Your task to perform on an android device: Go to Yahoo.com Image 0: 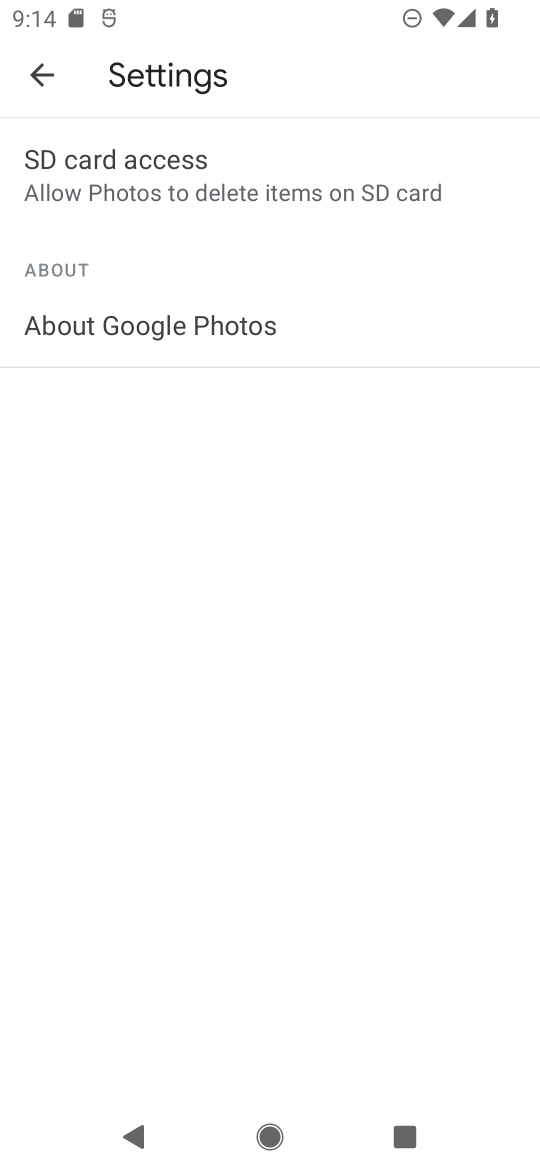
Step 0: press home button
Your task to perform on an android device: Go to Yahoo.com Image 1: 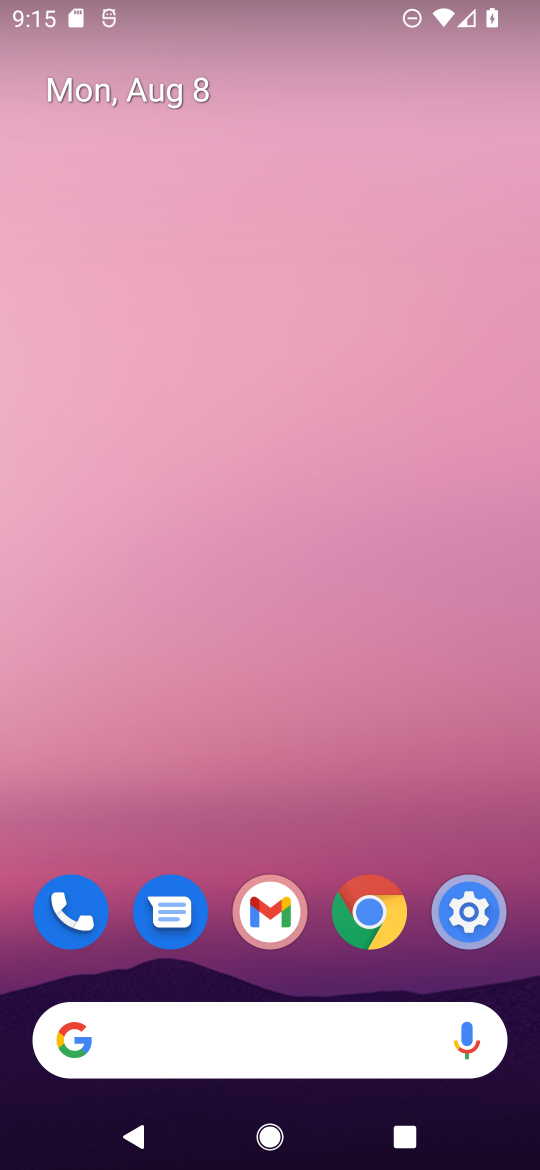
Step 1: drag from (408, 908) to (343, 27)
Your task to perform on an android device: Go to Yahoo.com Image 2: 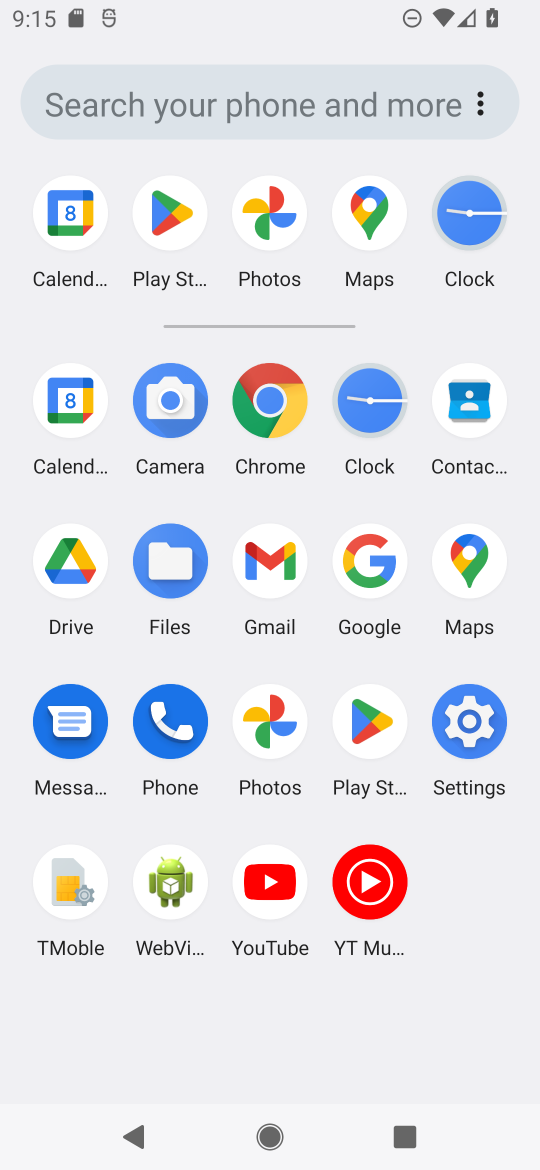
Step 2: click (354, 592)
Your task to perform on an android device: Go to Yahoo.com Image 3: 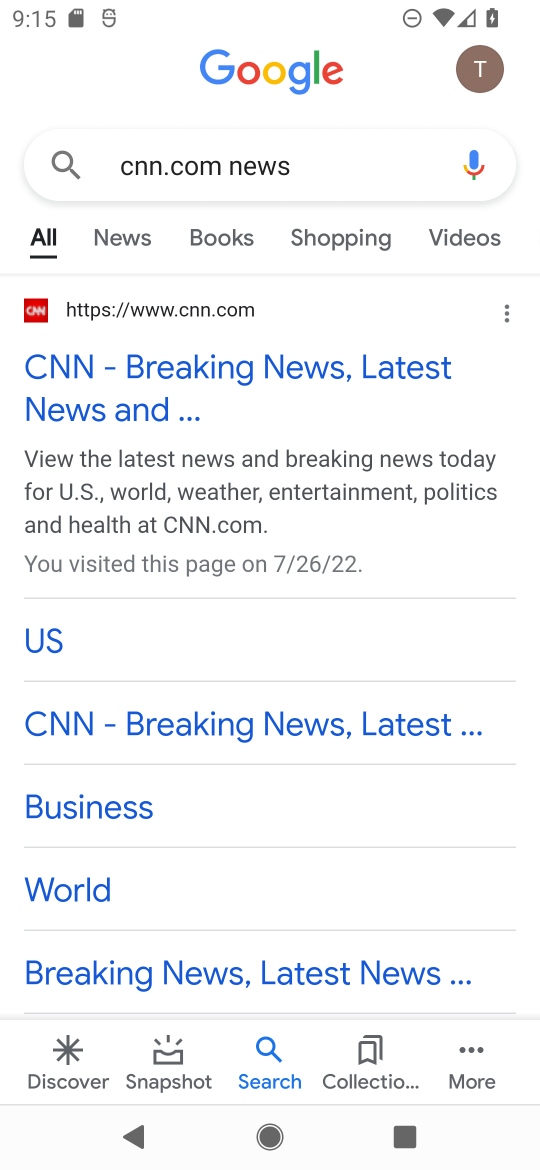
Step 3: press back button
Your task to perform on an android device: Go to Yahoo.com Image 4: 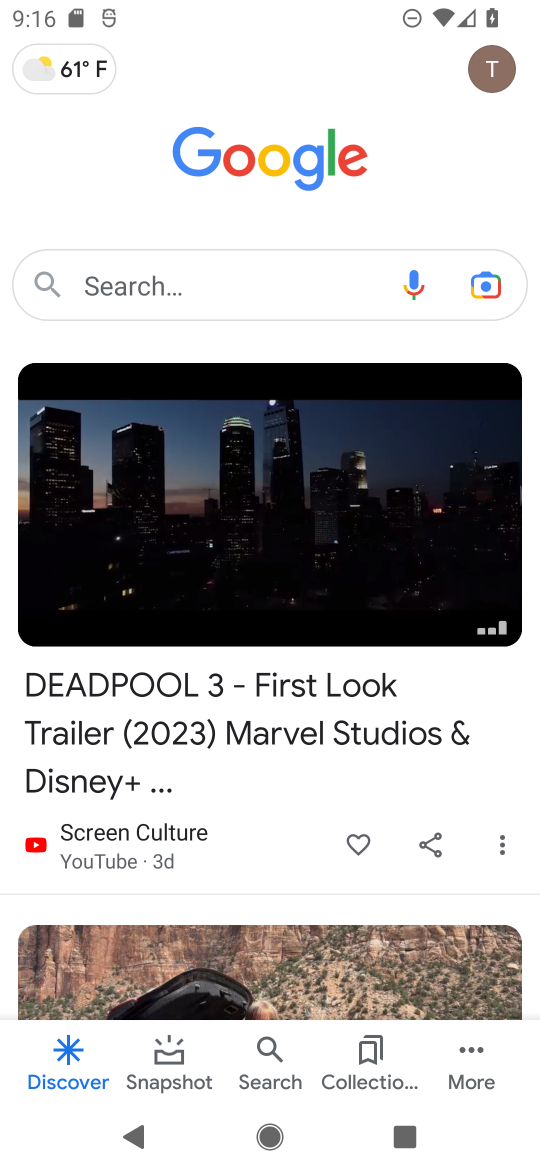
Step 4: click (252, 264)
Your task to perform on an android device: Go to Yahoo.com Image 5: 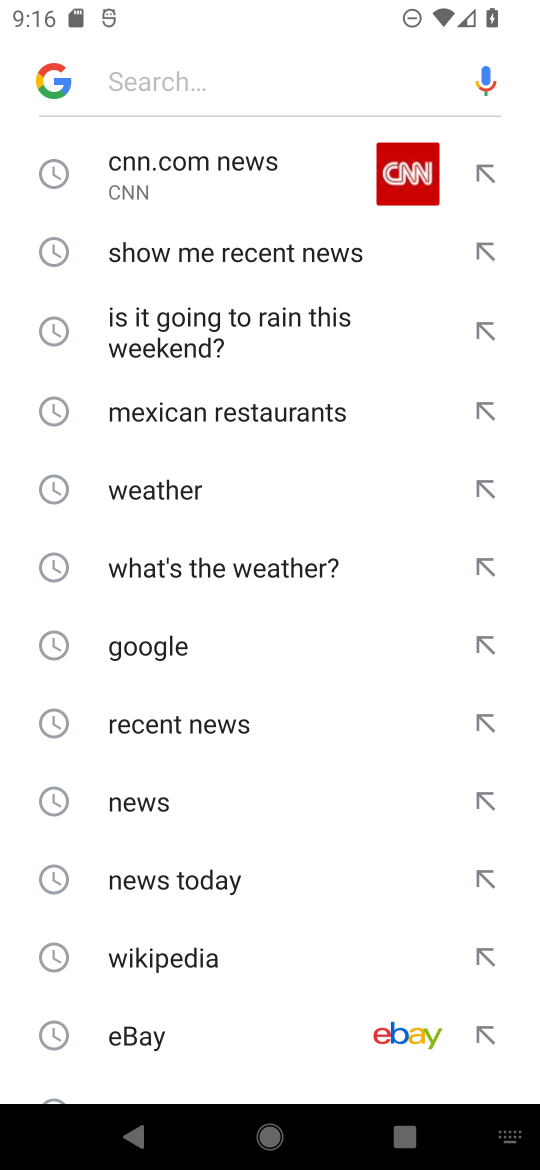
Step 5: type "Yahoo.com"
Your task to perform on an android device: Go to Yahoo.com Image 6: 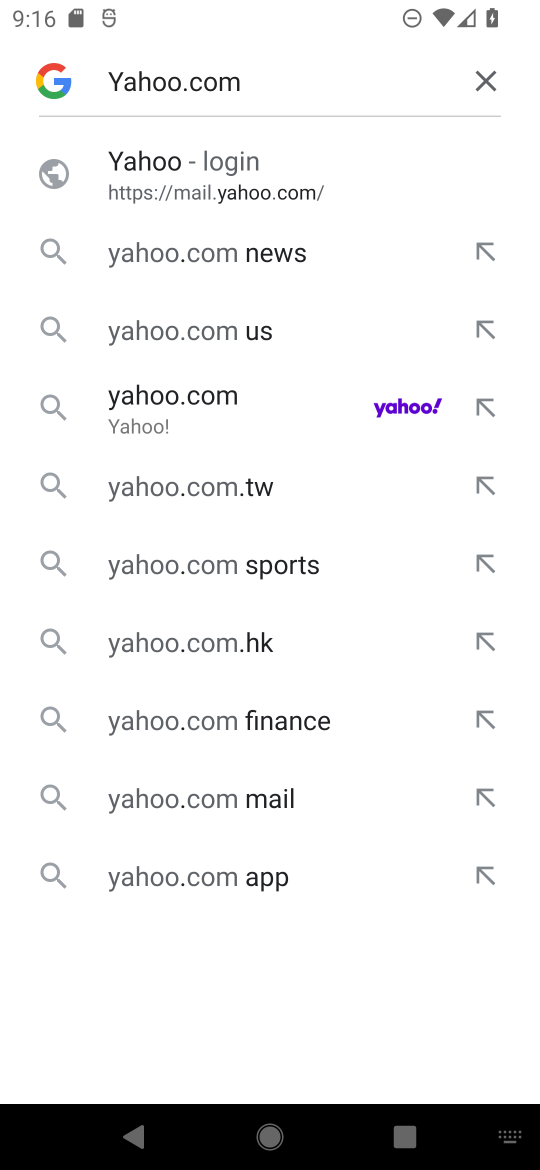
Step 6: click (215, 398)
Your task to perform on an android device: Go to Yahoo.com Image 7: 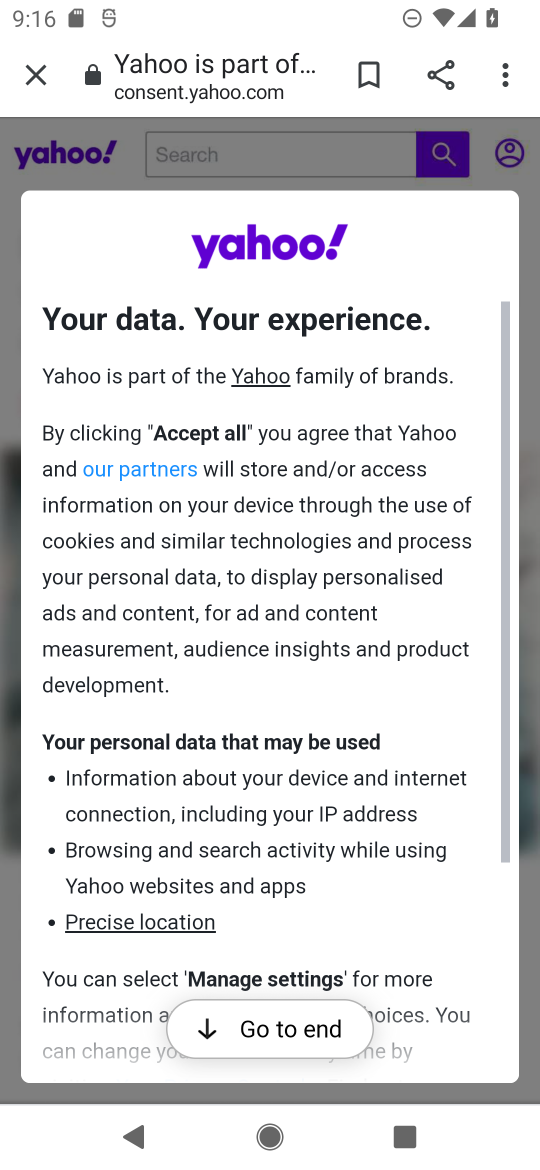
Step 7: task complete